Your task to perform on an android device: Do I have any events this weekend? Image 0: 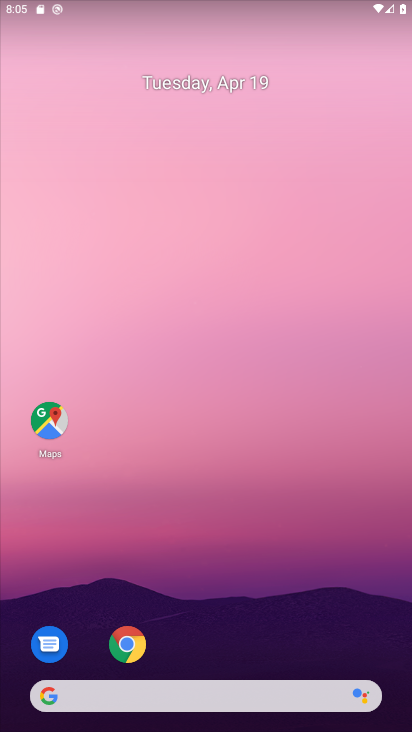
Step 0: drag from (196, 663) to (257, 1)
Your task to perform on an android device: Do I have any events this weekend? Image 1: 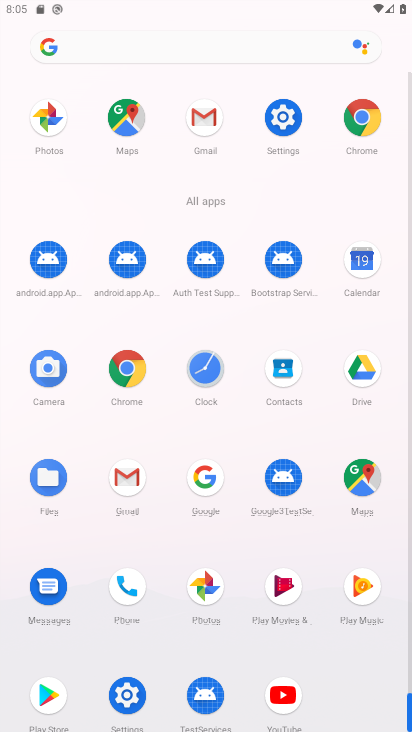
Step 1: click (358, 270)
Your task to perform on an android device: Do I have any events this weekend? Image 2: 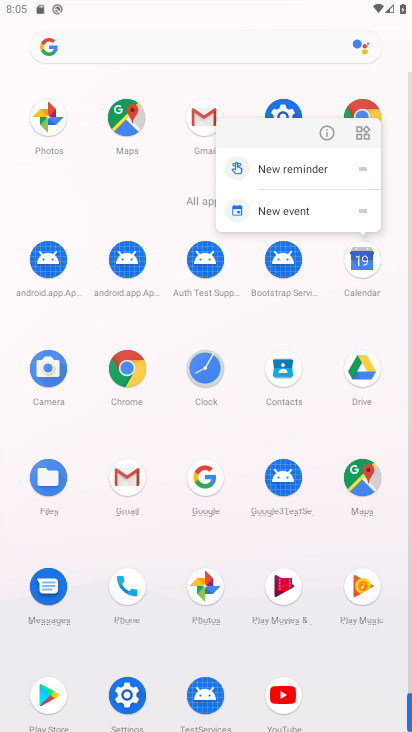
Step 2: click (329, 136)
Your task to perform on an android device: Do I have any events this weekend? Image 3: 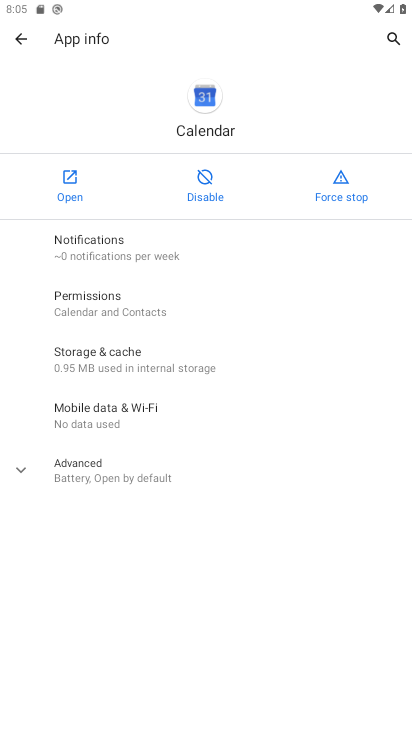
Step 3: click (70, 192)
Your task to perform on an android device: Do I have any events this weekend? Image 4: 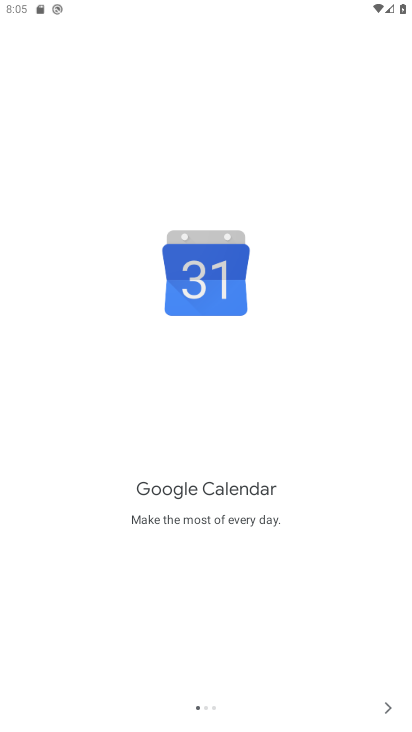
Step 4: click (387, 709)
Your task to perform on an android device: Do I have any events this weekend? Image 5: 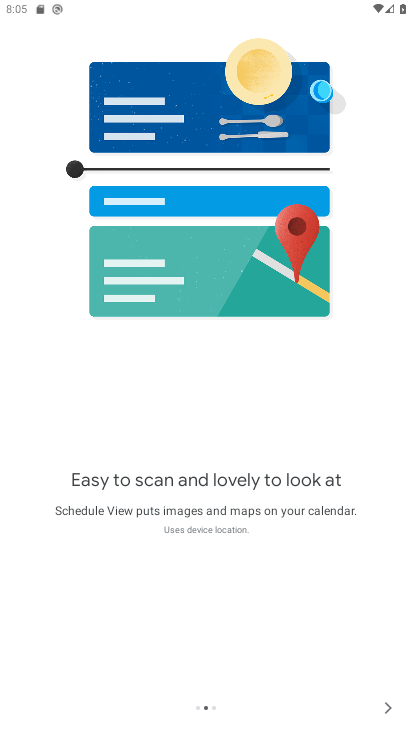
Step 5: click (387, 709)
Your task to perform on an android device: Do I have any events this weekend? Image 6: 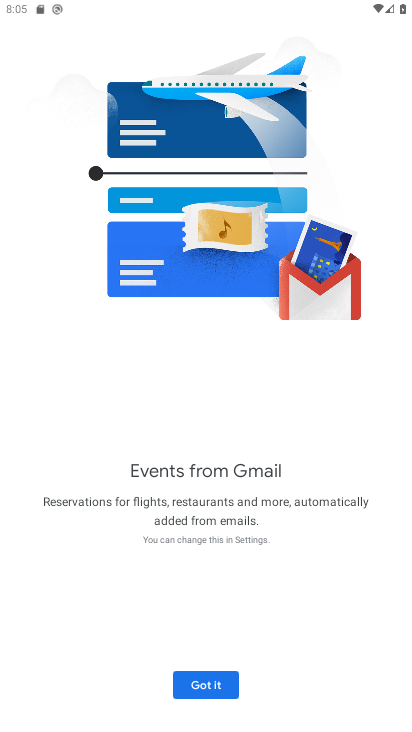
Step 6: click (189, 682)
Your task to perform on an android device: Do I have any events this weekend? Image 7: 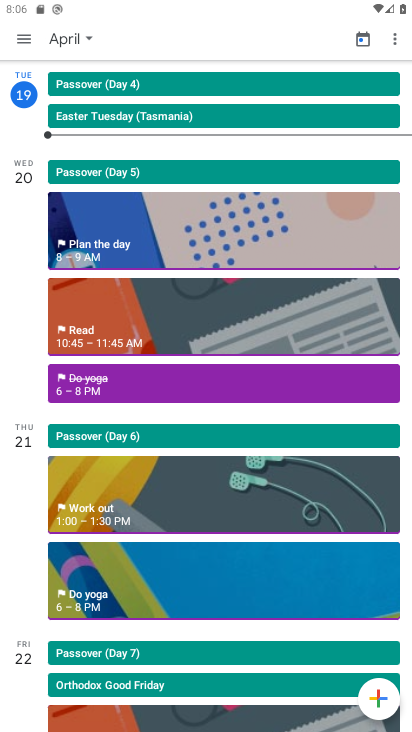
Step 7: click (54, 41)
Your task to perform on an android device: Do I have any events this weekend? Image 8: 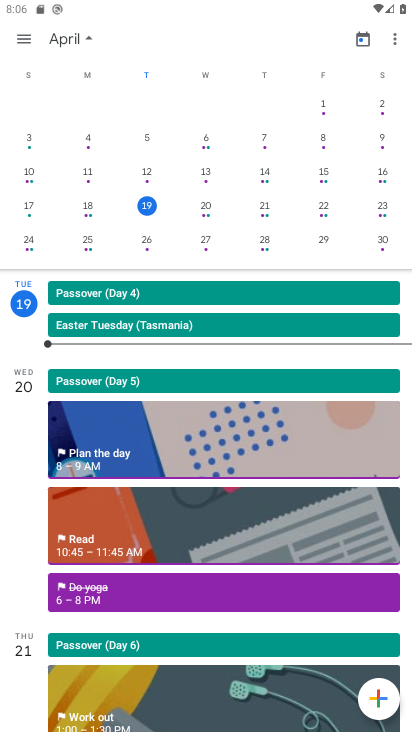
Step 8: click (382, 210)
Your task to perform on an android device: Do I have any events this weekend? Image 9: 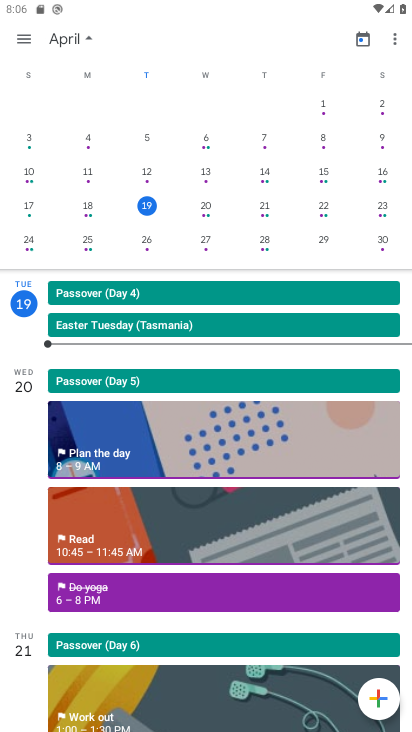
Step 9: click (381, 206)
Your task to perform on an android device: Do I have any events this weekend? Image 10: 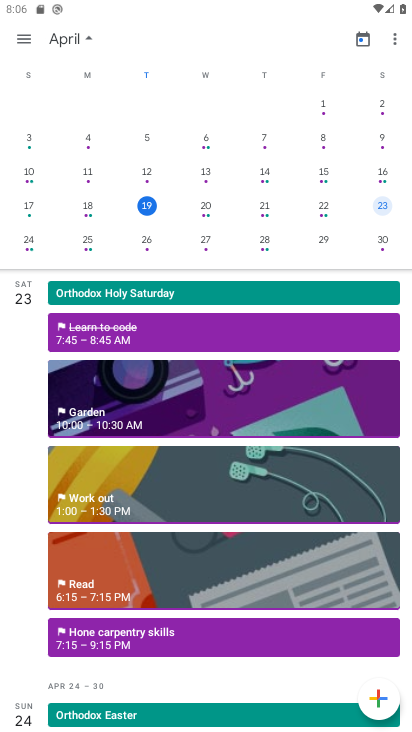
Step 10: click (20, 241)
Your task to perform on an android device: Do I have any events this weekend? Image 11: 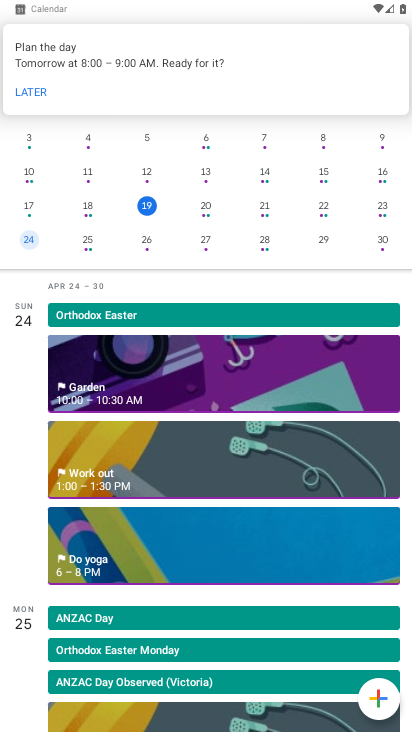
Step 11: task complete